Your task to perform on an android device: Open calendar and show me the fourth week of next month Image 0: 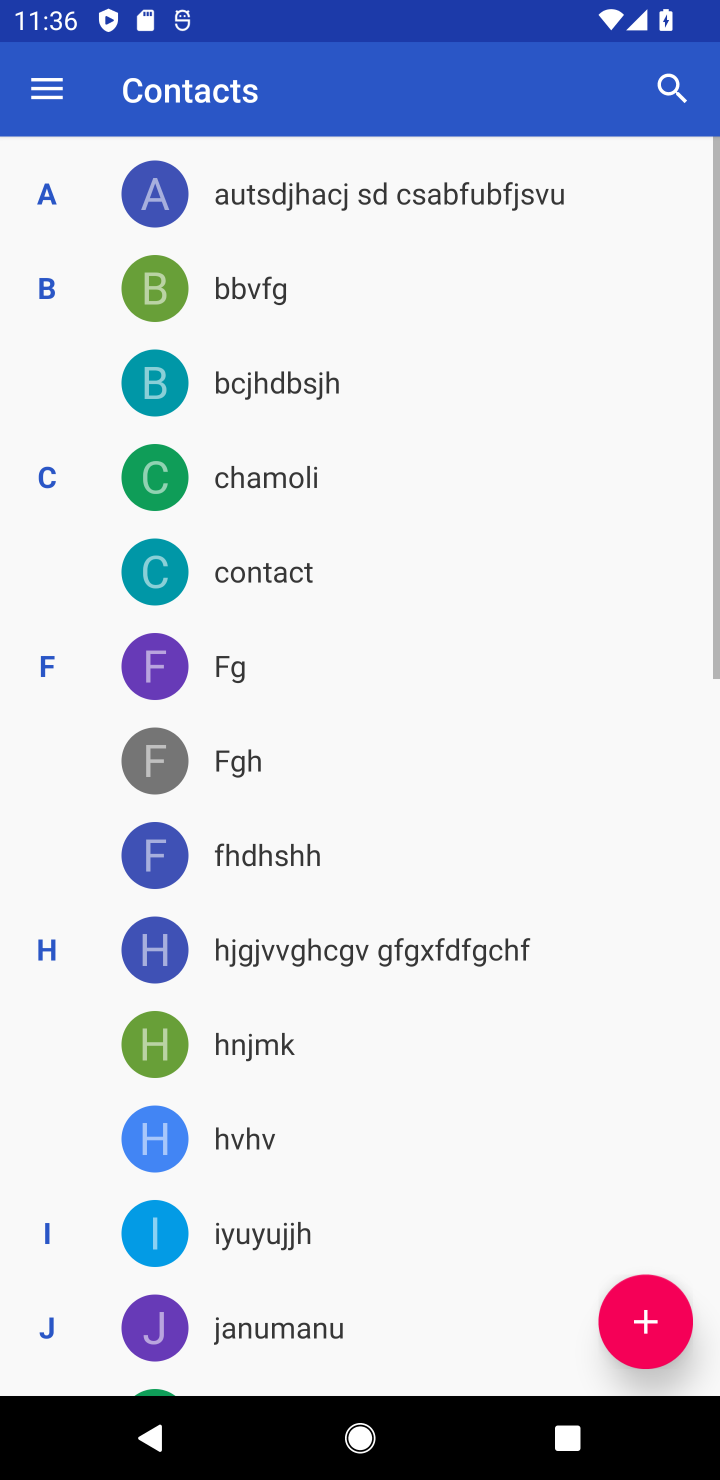
Step 0: press home button
Your task to perform on an android device: Open calendar and show me the fourth week of next month Image 1: 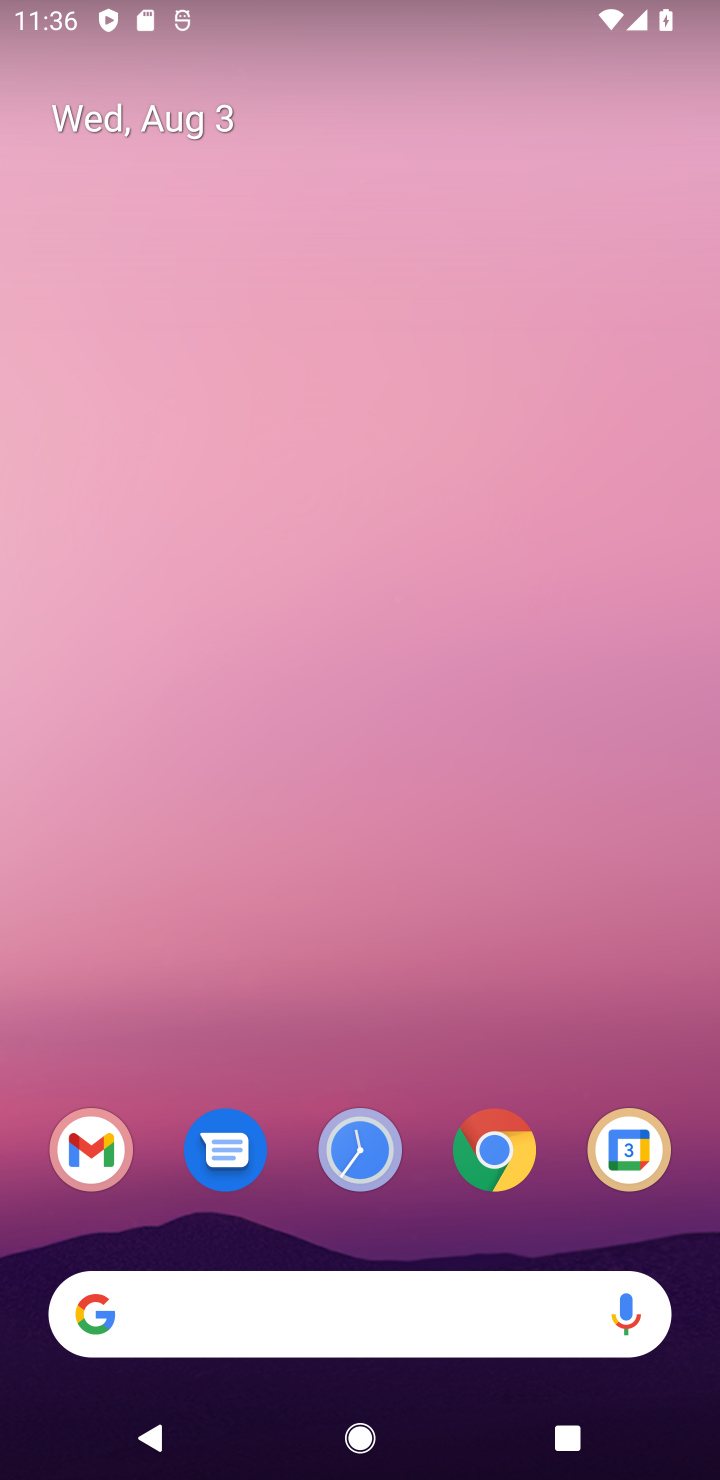
Step 1: drag from (544, 981) to (567, 359)
Your task to perform on an android device: Open calendar and show me the fourth week of next month Image 2: 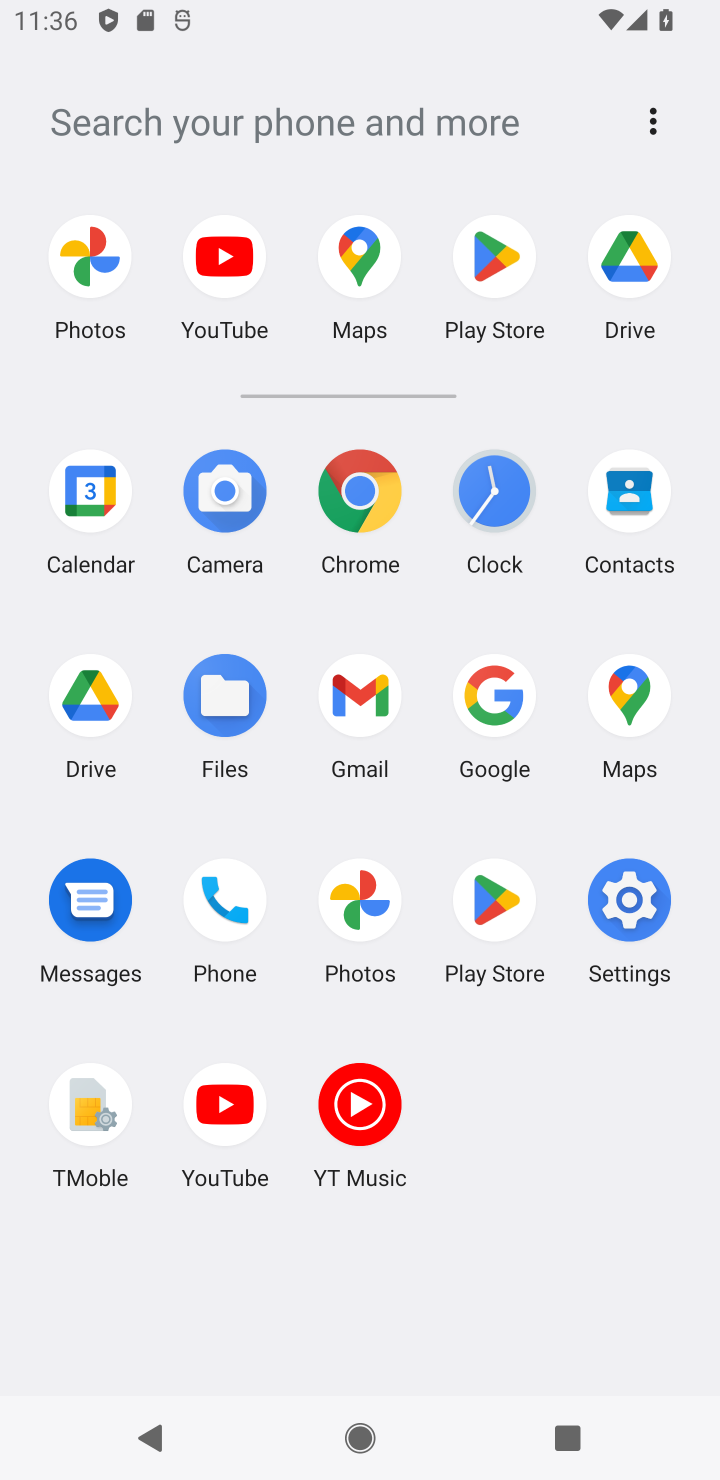
Step 2: click (98, 501)
Your task to perform on an android device: Open calendar and show me the fourth week of next month Image 3: 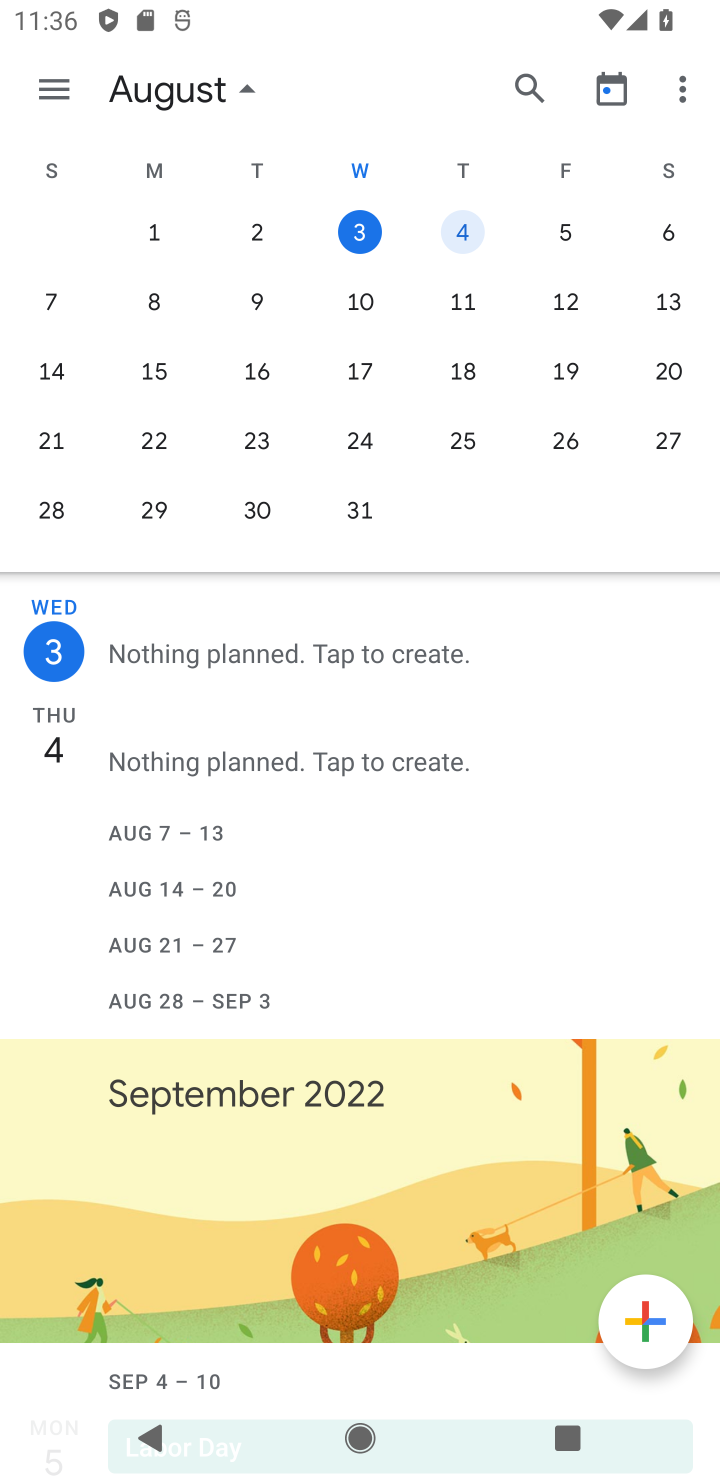
Step 3: drag from (687, 256) to (197, 257)
Your task to perform on an android device: Open calendar and show me the fourth week of next month Image 4: 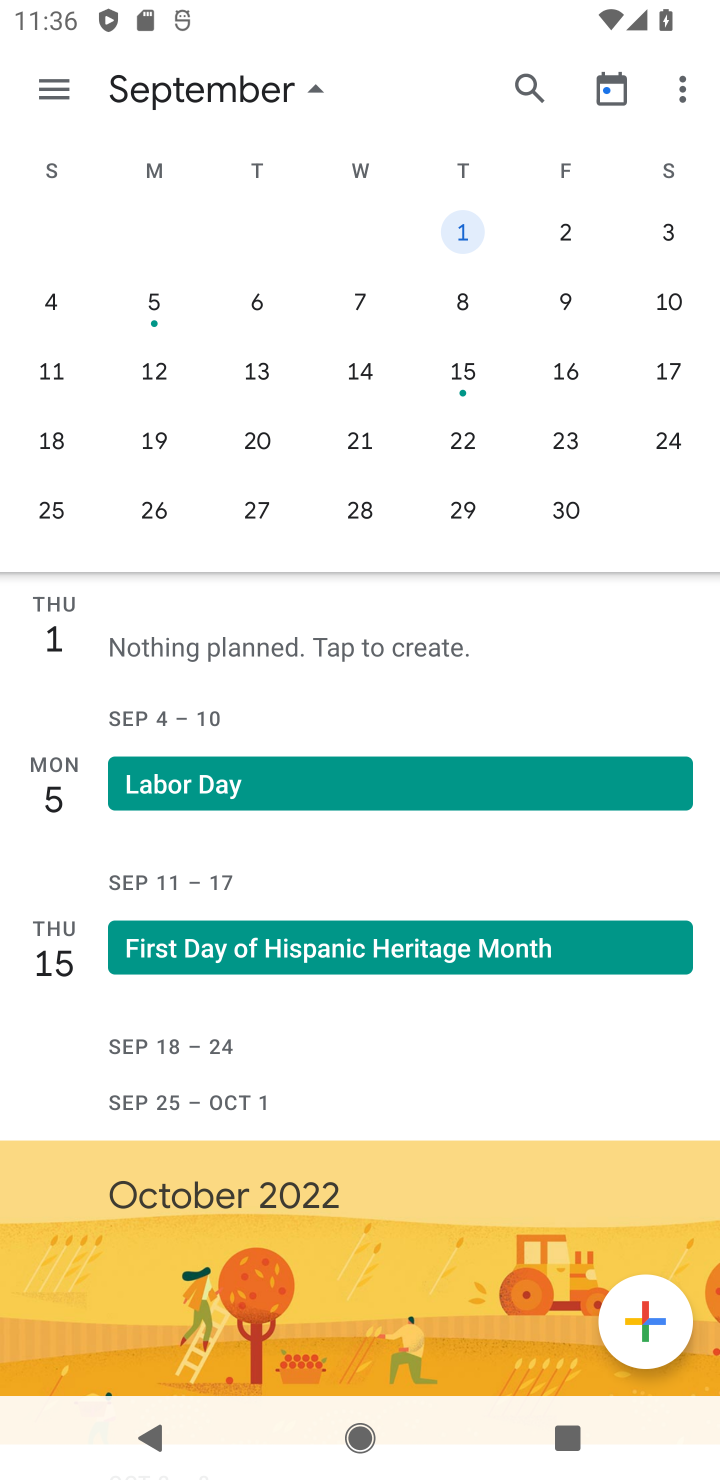
Step 4: click (154, 441)
Your task to perform on an android device: Open calendar and show me the fourth week of next month Image 5: 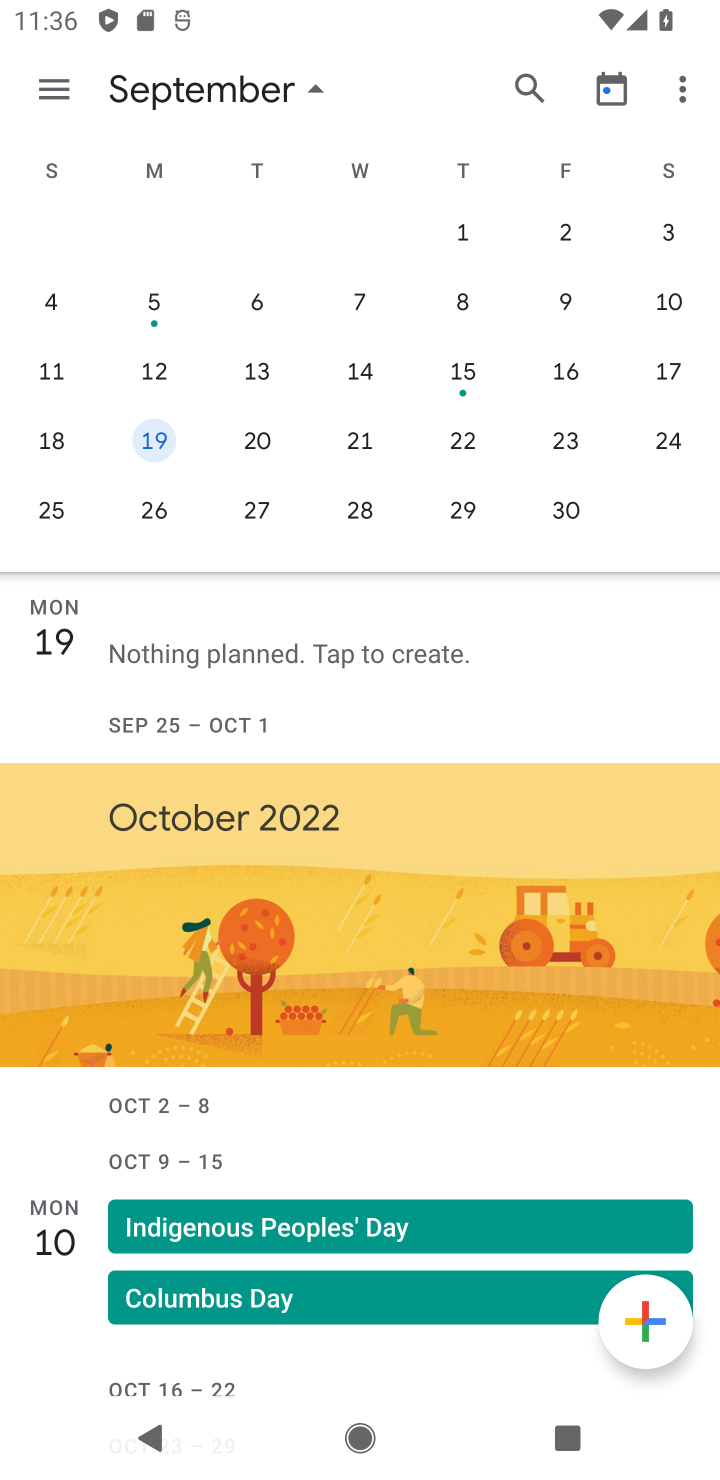
Step 5: task complete